Your task to perform on an android device: How much does a 2 bedroom apartment rent for in Los Angeles? Image 0: 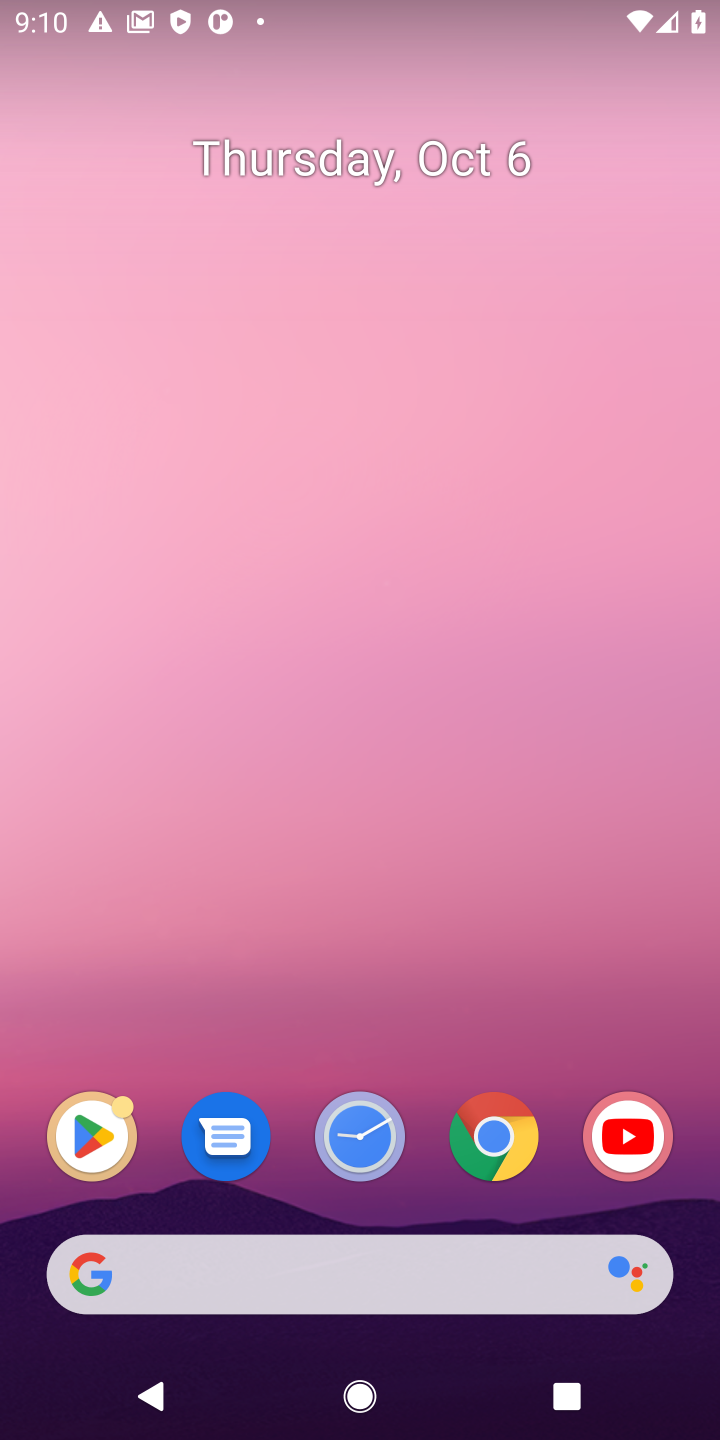
Step 0: press home button
Your task to perform on an android device: How much does a 2 bedroom apartment rent for in Los Angeles? Image 1: 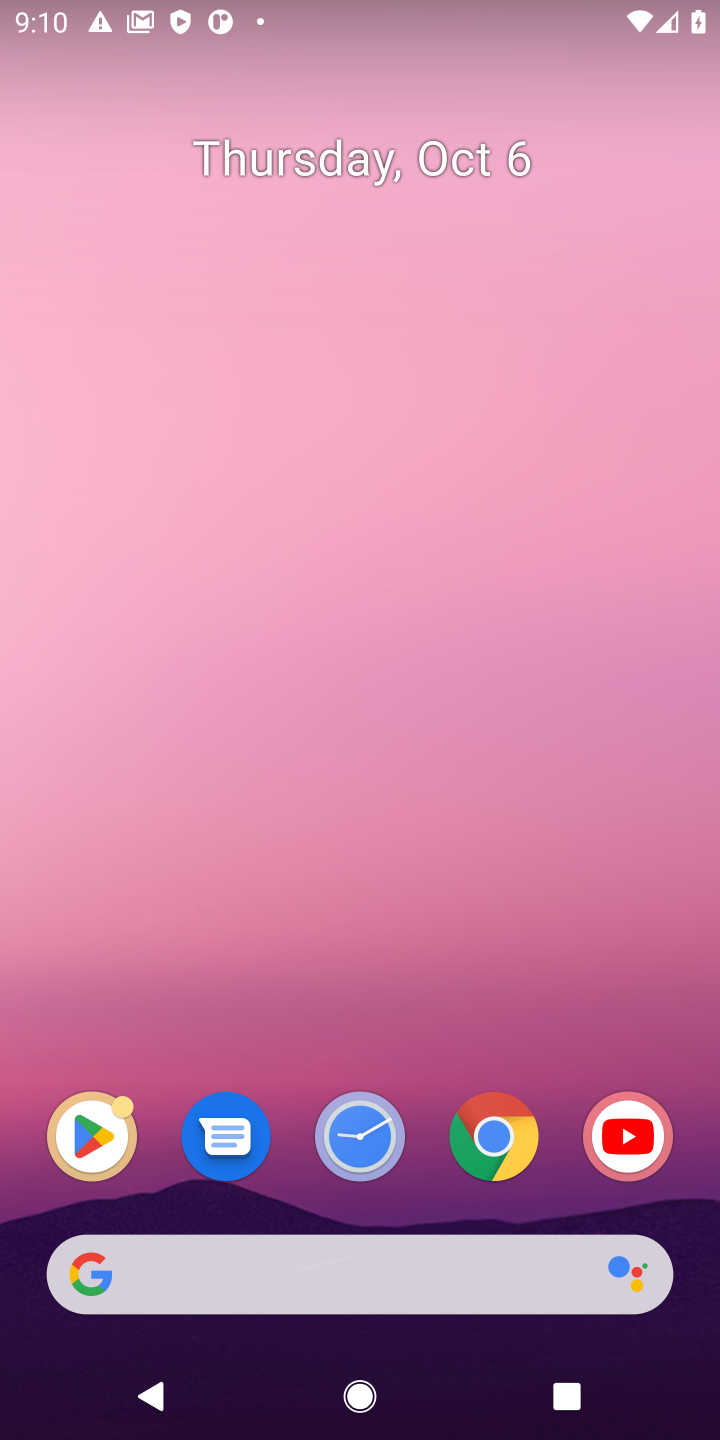
Step 1: drag from (435, 1004) to (266, 240)
Your task to perform on an android device: How much does a 2 bedroom apartment rent for in Los Angeles? Image 2: 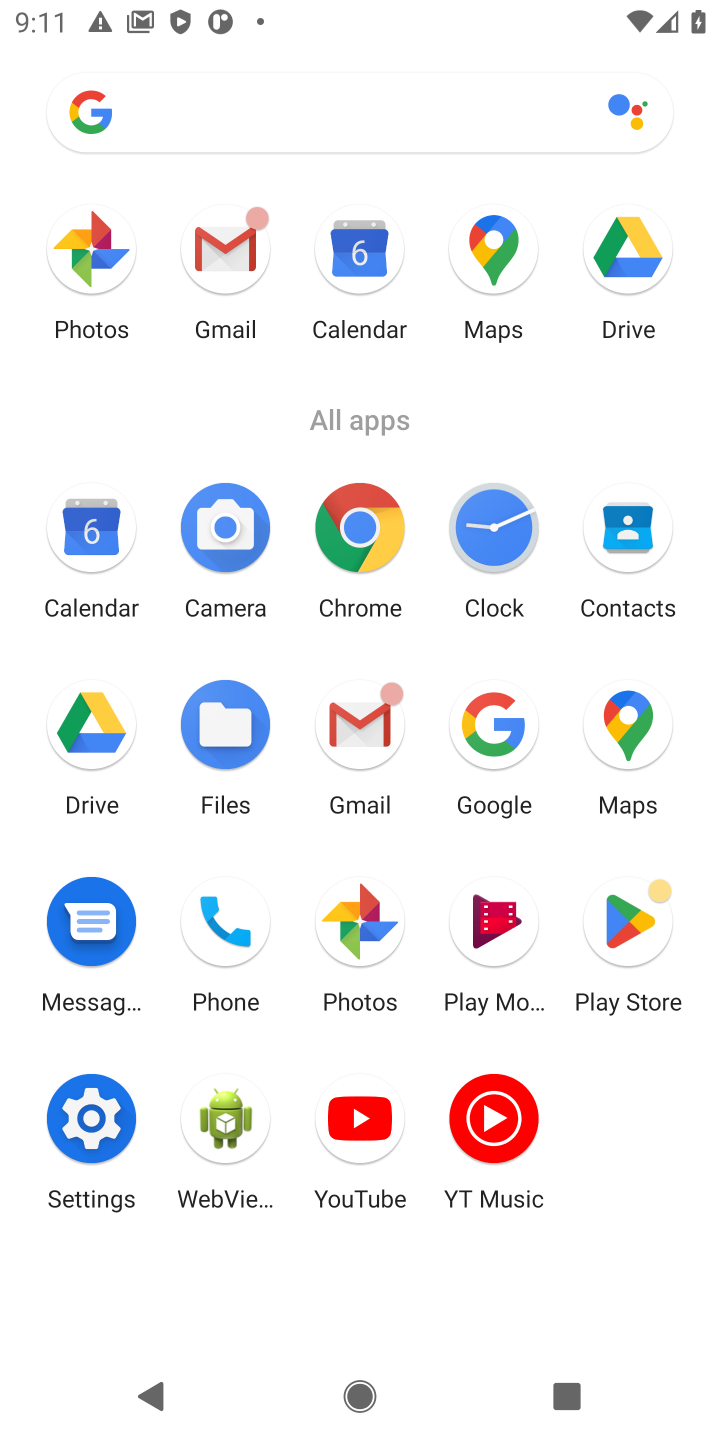
Step 2: click (491, 744)
Your task to perform on an android device: How much does a 2 bedroom apartment rent for in Los Angeles? Image 3: 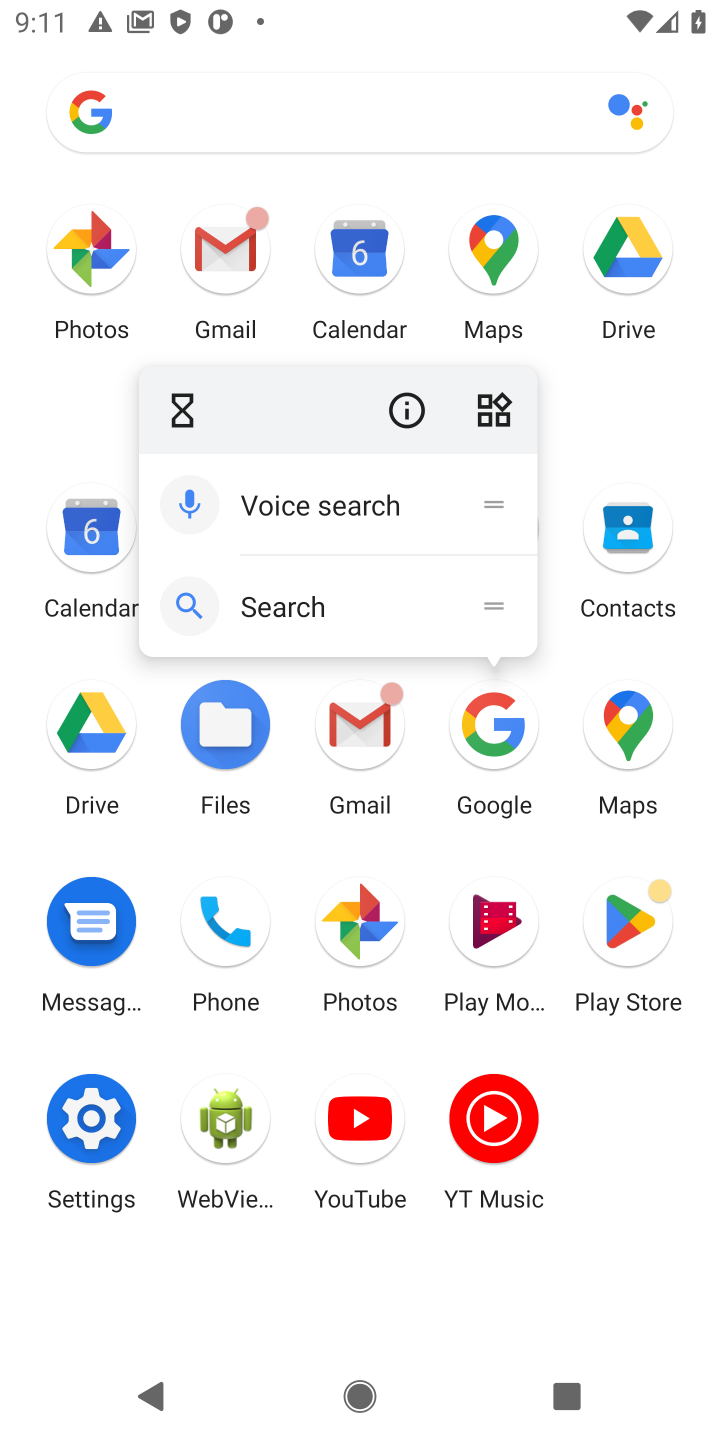
Step 3: click (495, 698)
Your task to perform on an android device: How much does a 2 bedroom apartment rent for in Los Angeles? Image 4: 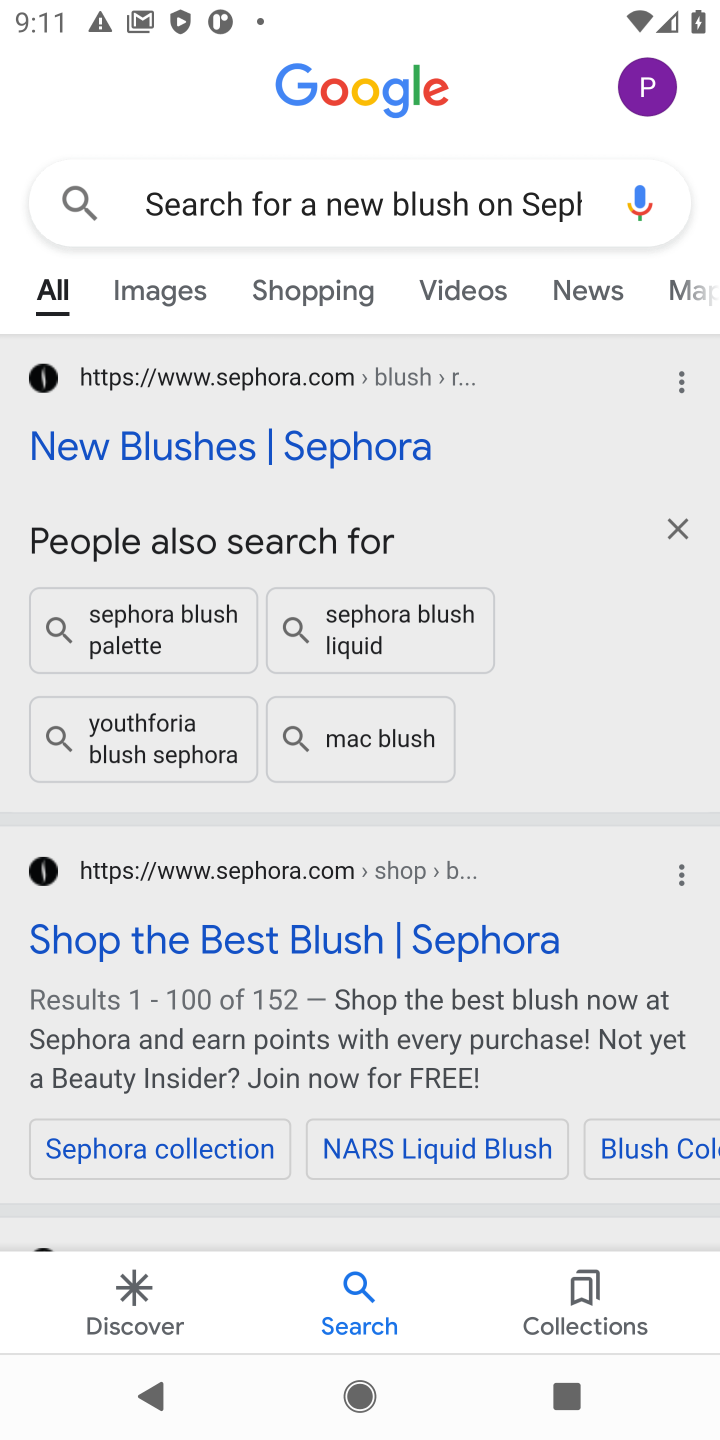
Step 4: click (508, 196)
Your task to perform on an android device: How much does a 2 bedroom apartment rent for in Los Angeles? Image 5: 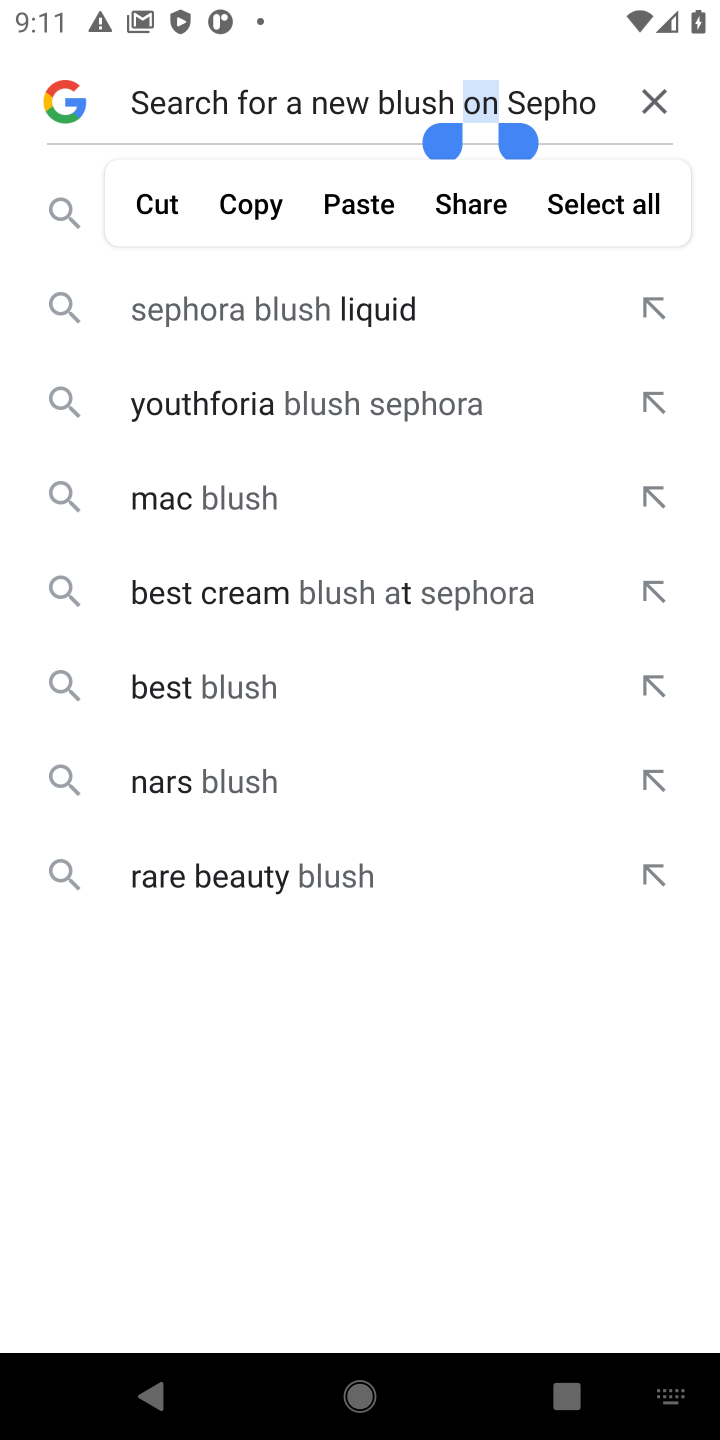
Step 5: click (644, 113)
Your task to perform on an android device: How much does a 2 bedroom apartment rent for in Los Angeles? Image 6: 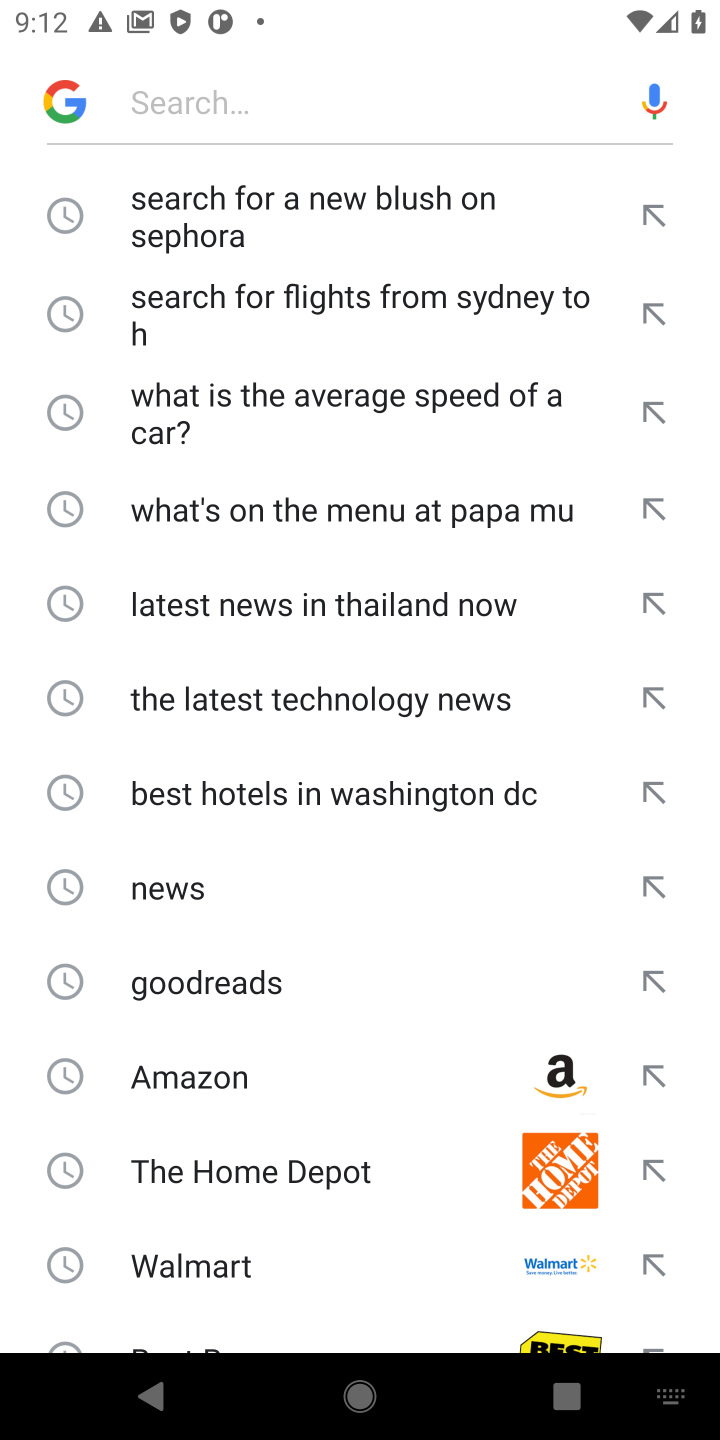
Step 6: type "How much does a 2 bedroom apartment rent for in Los Angeles?"
Your task to perform on an android device: How much does a 2 bedroom apartment rent for in Los Angeles? Image 7: 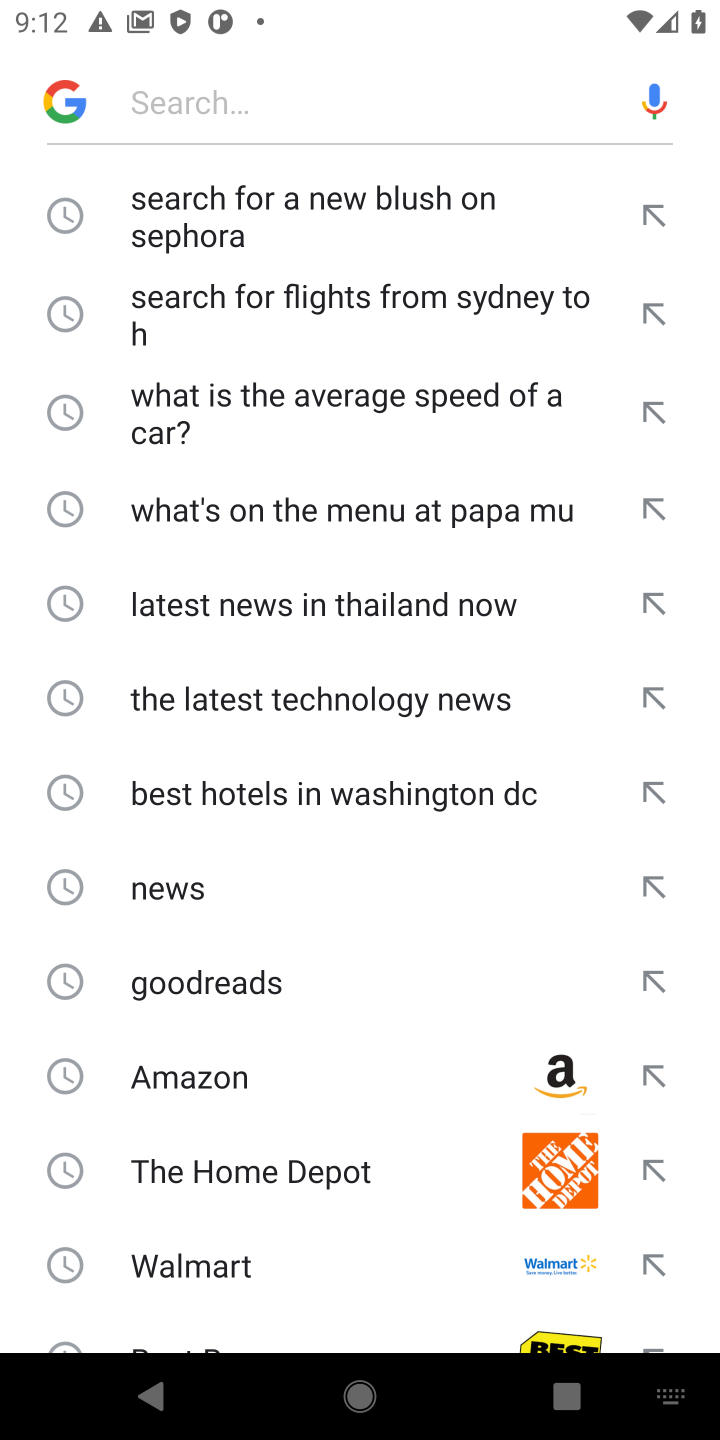
Step 7: click (231, 96)
Your task to perform on an android device: How much does a 2 bedroom apartment rent for in Los Angeles? Image 8: 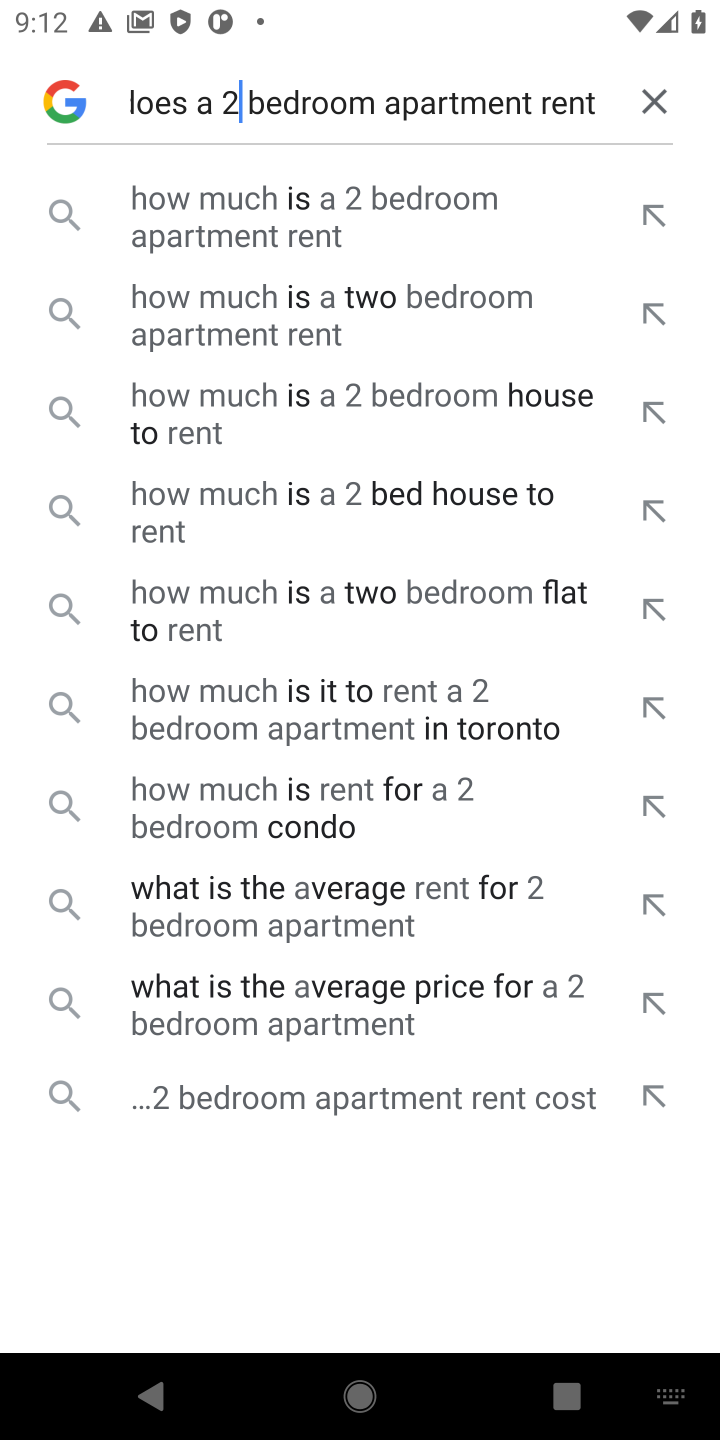
Step 8: click (176, 95)
Your task to perform on an android device: How much does a 2 bedroom apartment rent for in Los Angeles? Image 9: 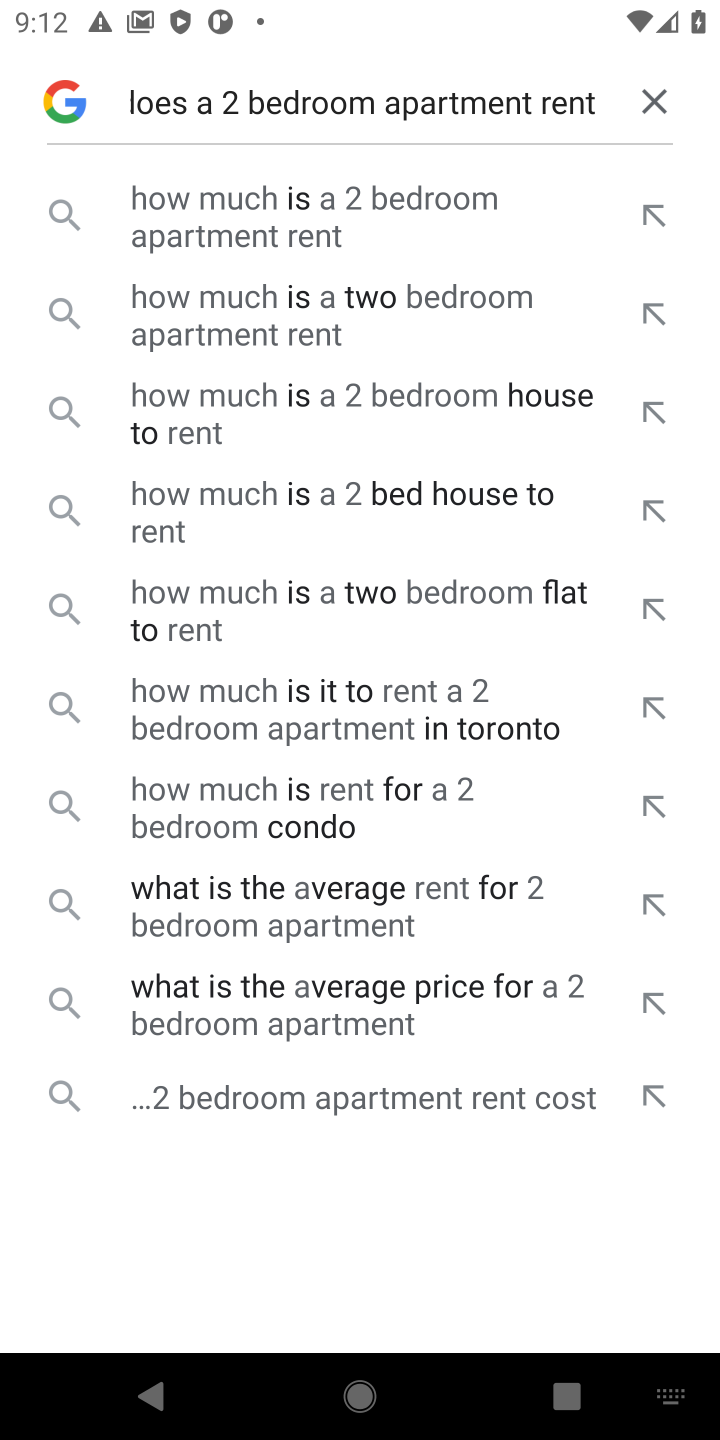
Step 9: press enter
Your task to perform on an android device: How much does a 2 bedroom apartment rent for in Los Angeles? Image 10: 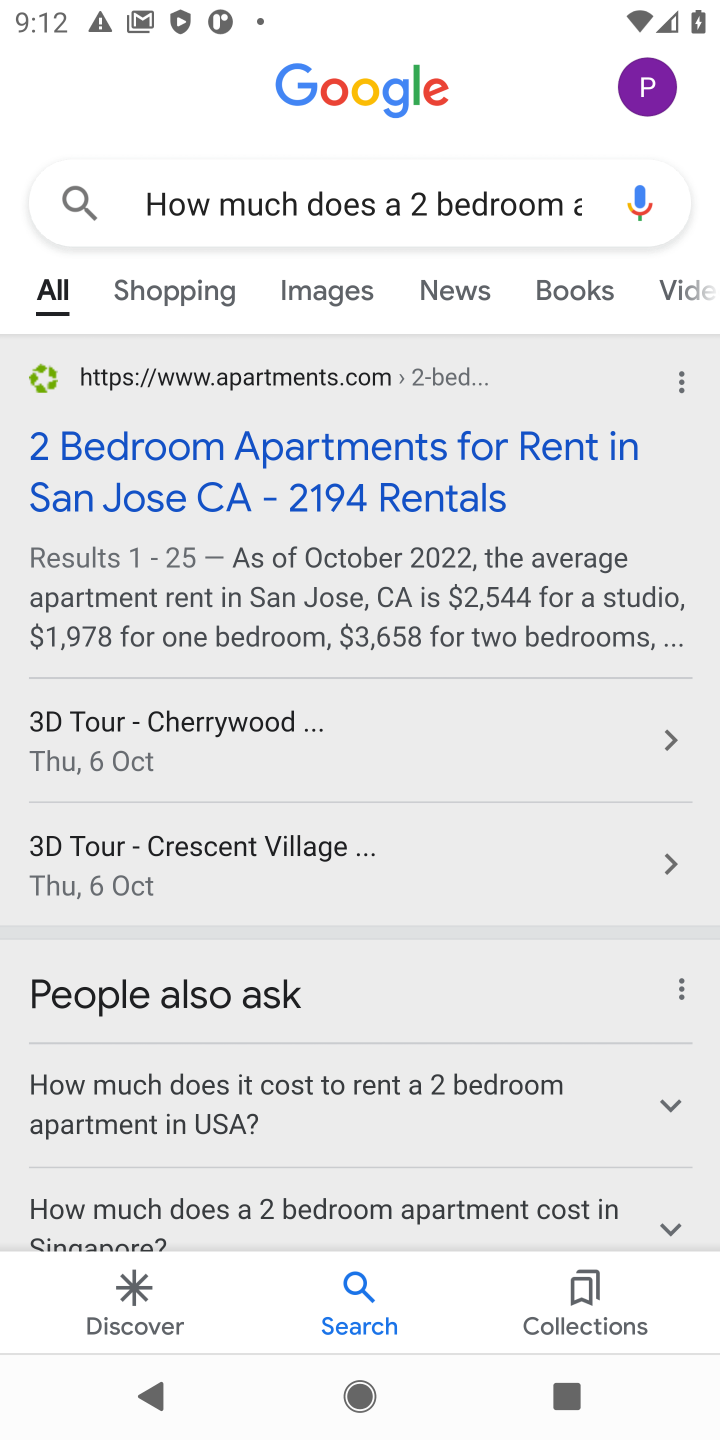
Step 10: task complete